Your task to perform on an android device: Add "logitech g pro" to the cart on amazon Image 0: 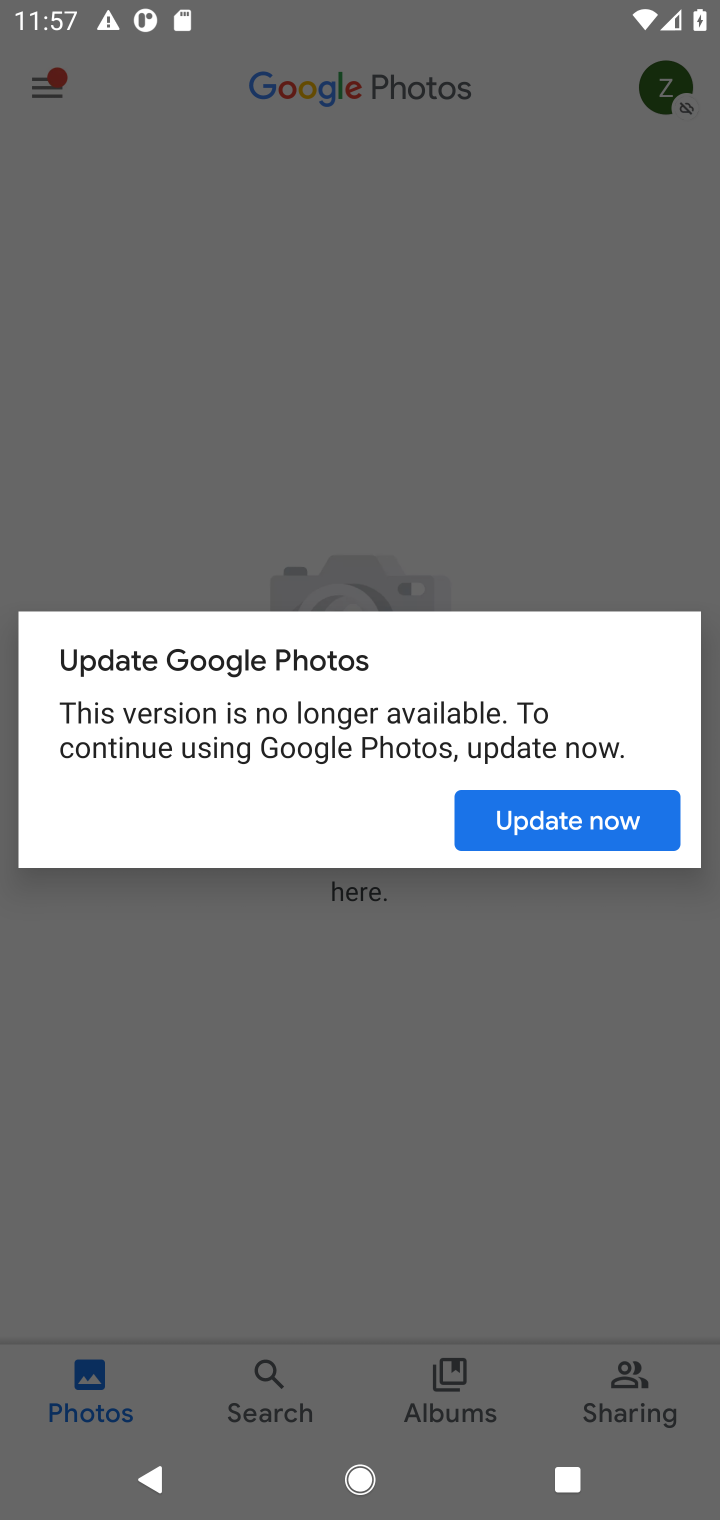
Step 0: press home button
Your task to perform on an android device: Add "logitech g pro" to the cart on amazon Image 1: 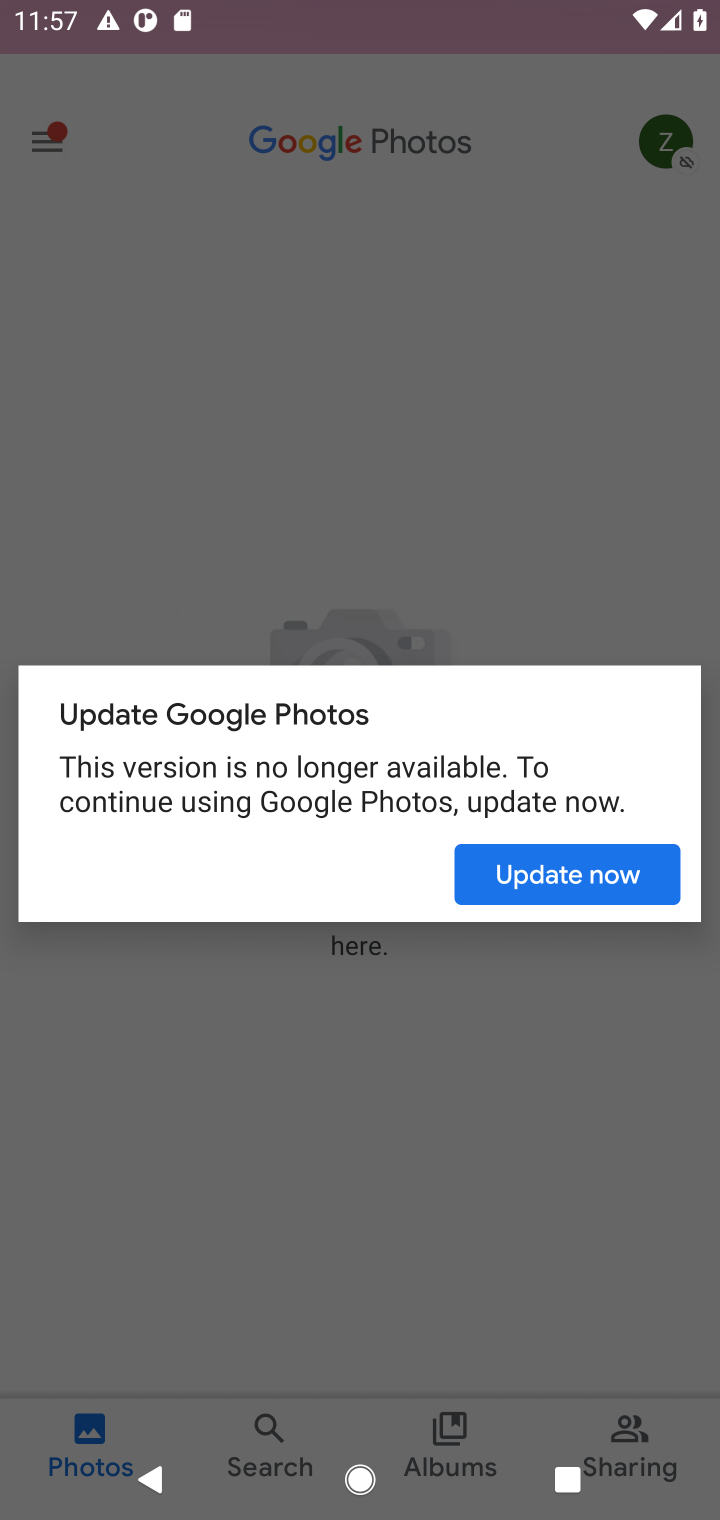
Step 1: press home button
Your task to perform on an android device: Add "logitech g pro" to the cart on amazon Image 2: 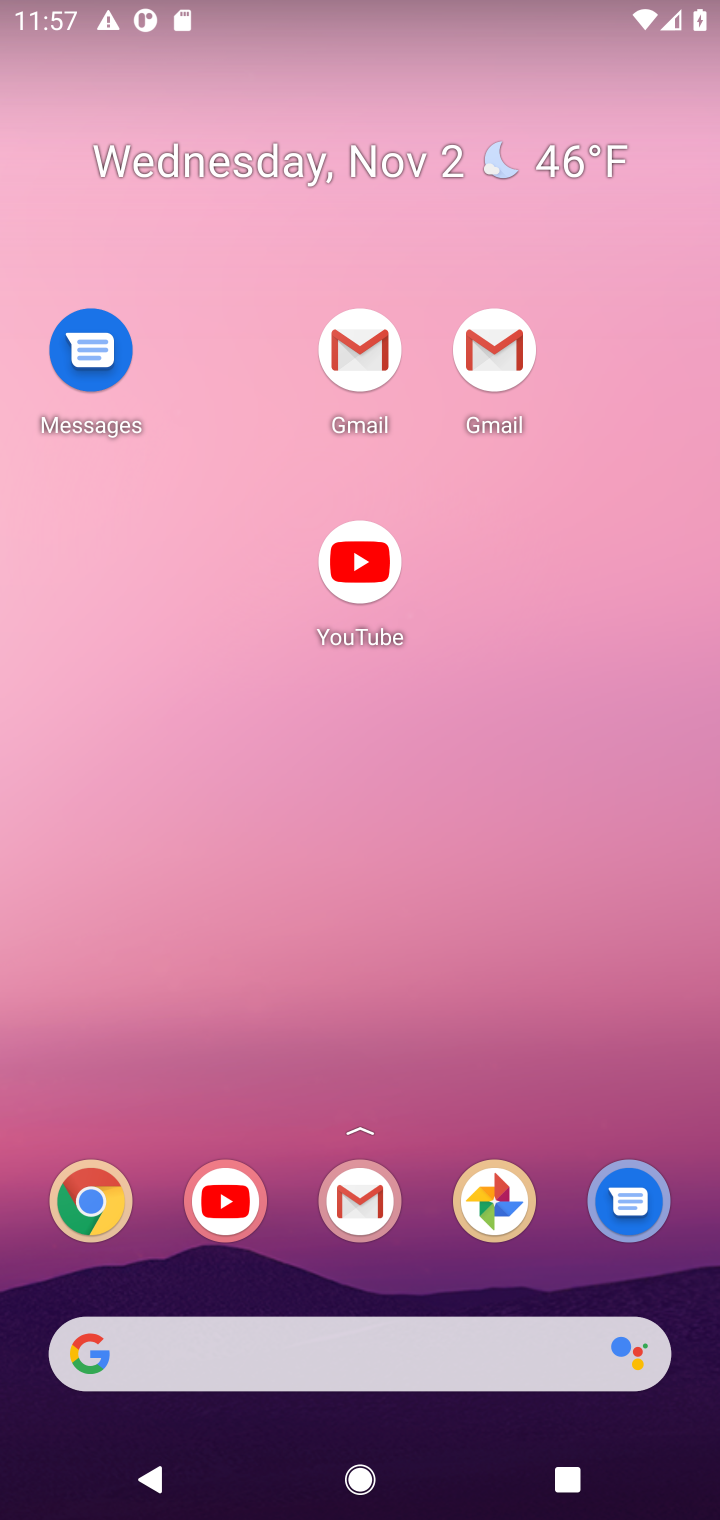
Step 2: drag from (410, 1209) to (342, 378)
Your task to perform on an android device: Add "logitech g pro" to the cart on amazon Image 3: 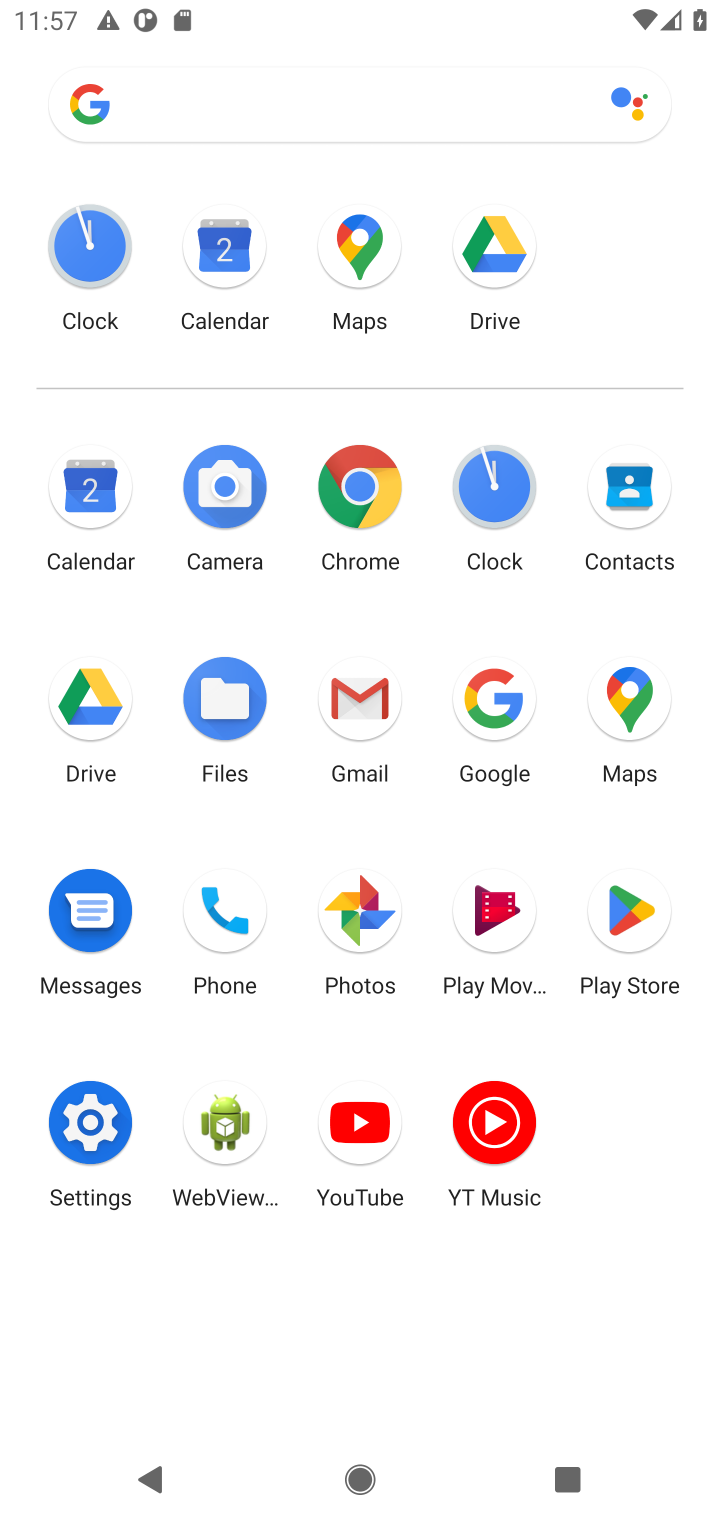
Step 3: click (350, 485)
Your task to perform on an android device: Add "logitech g pro" to the cart on amazon Image 4: 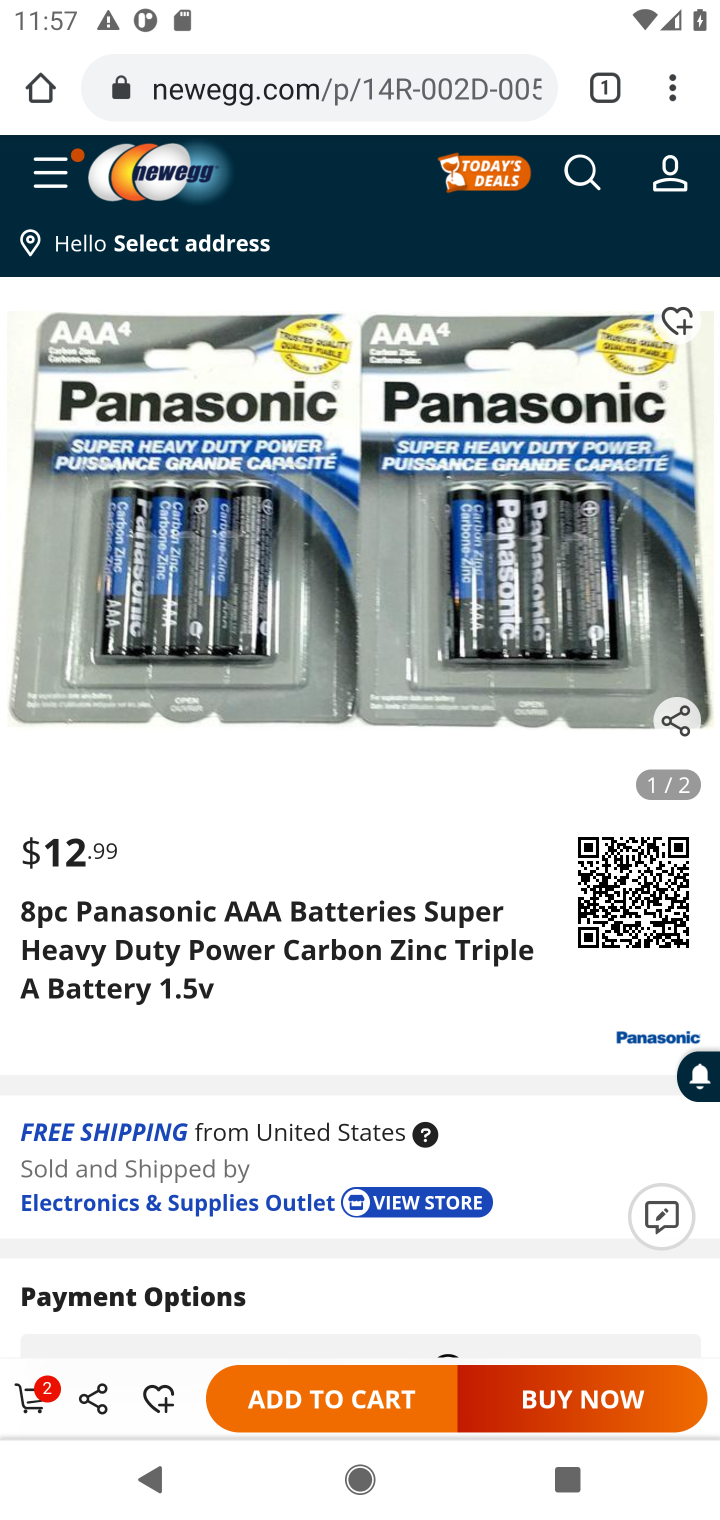
Step 4: click (338, 86)
Your task to perform on an android device: Add "logitech g pro" to the cart on amazon Image 5: 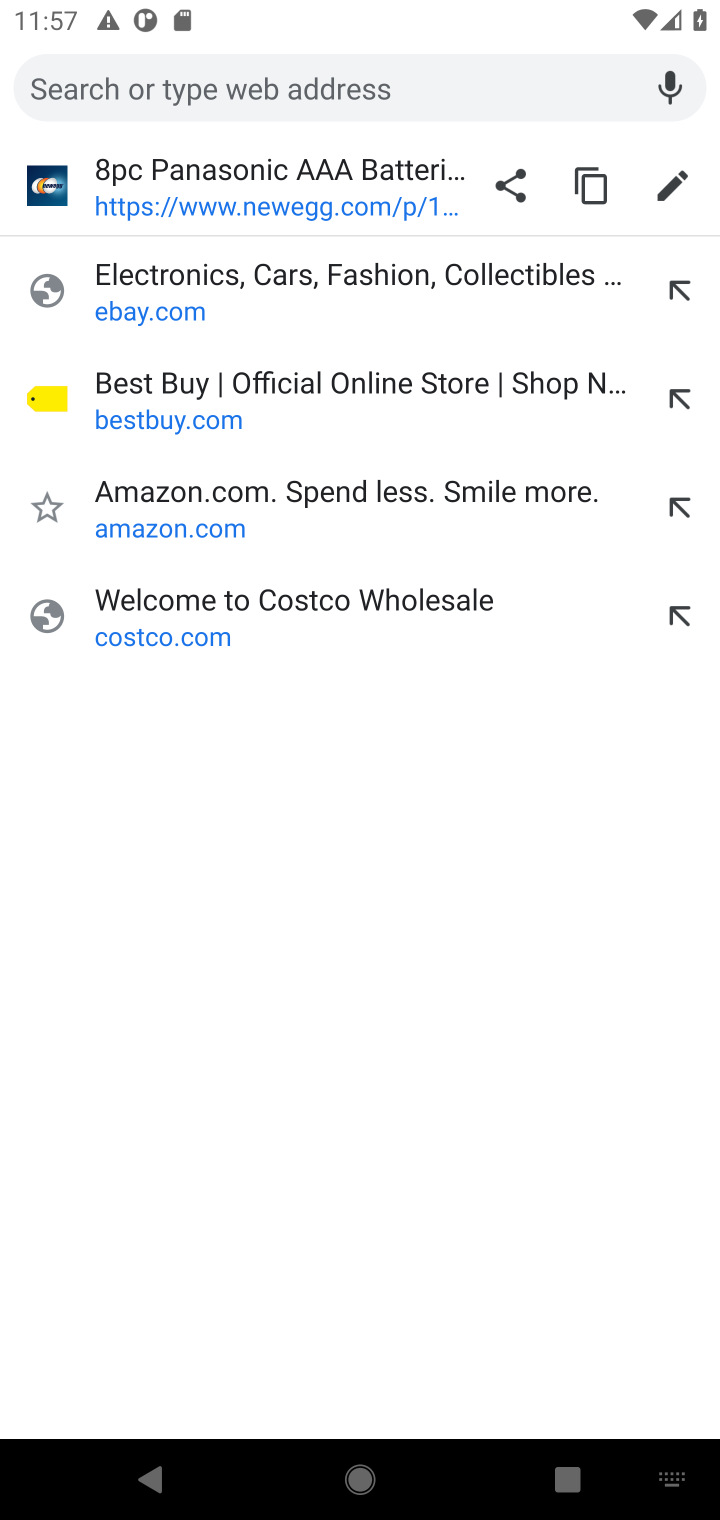
Step 5: type "amazon.com"
Your task to perform on an android device: Add "logitech g pro" to the cart on amazon Image 6: 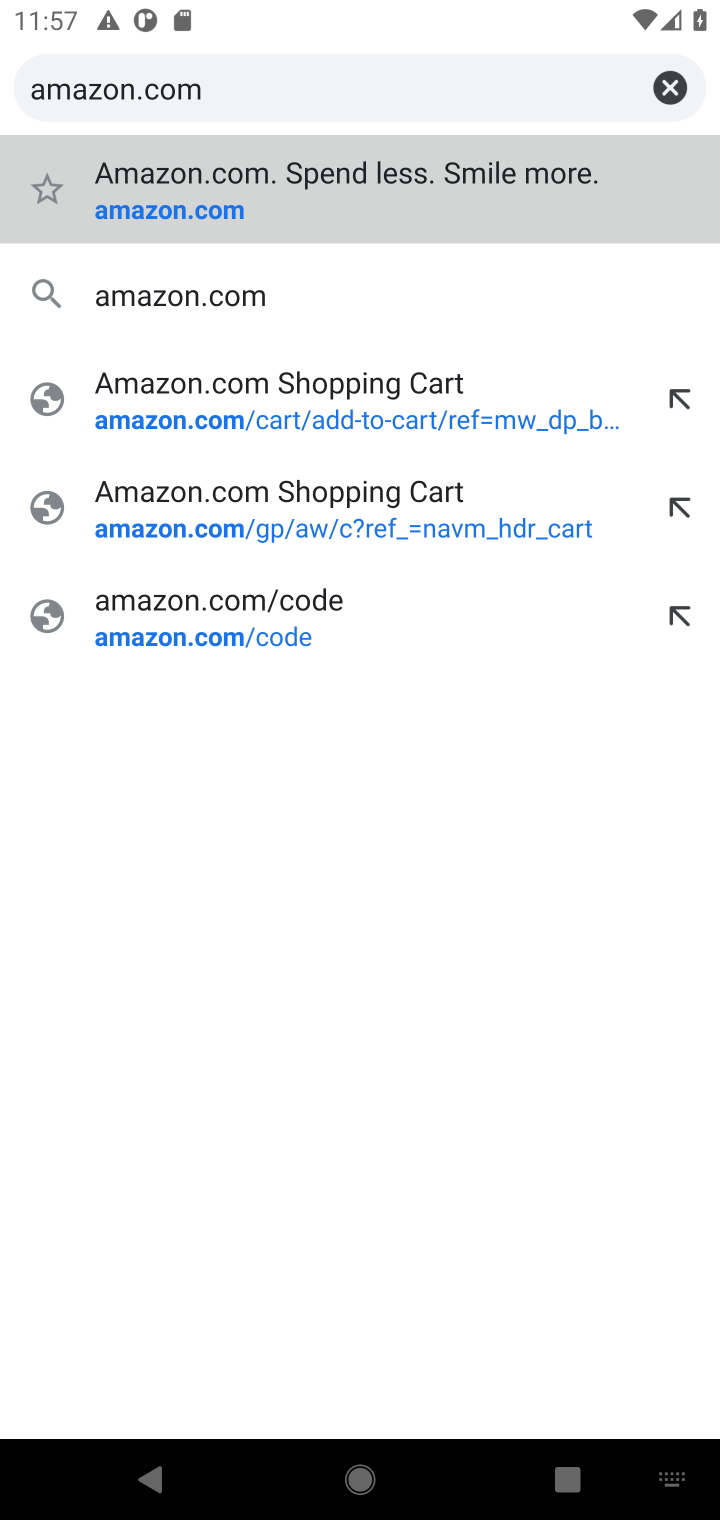
Step 6: press enter
Your task to perform on an android device: Add "logitech g pro" to the cart on amazon Image 7: 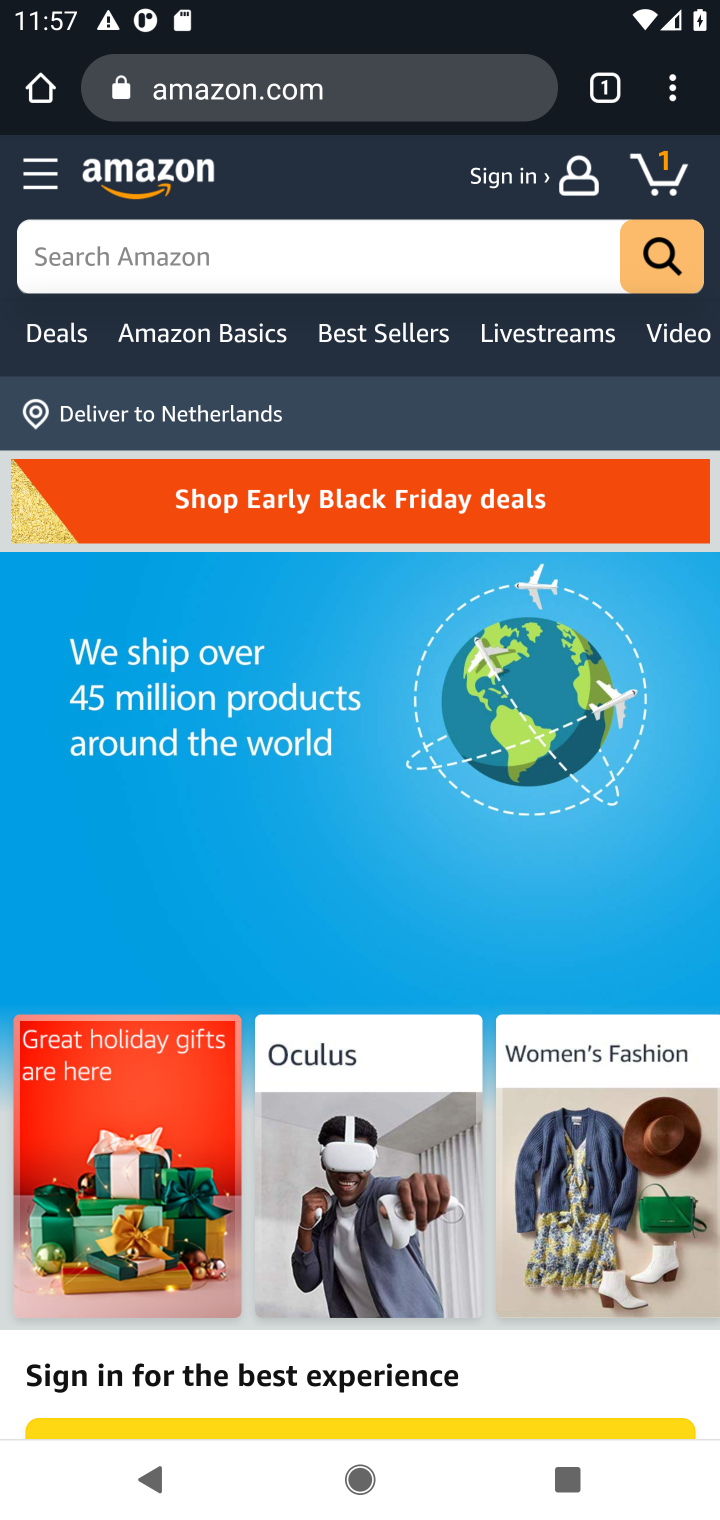
Step 7: click (212, 260)
Your task to perform on an android device: Add "logitech g pro" to the cart on amazon Image 8: 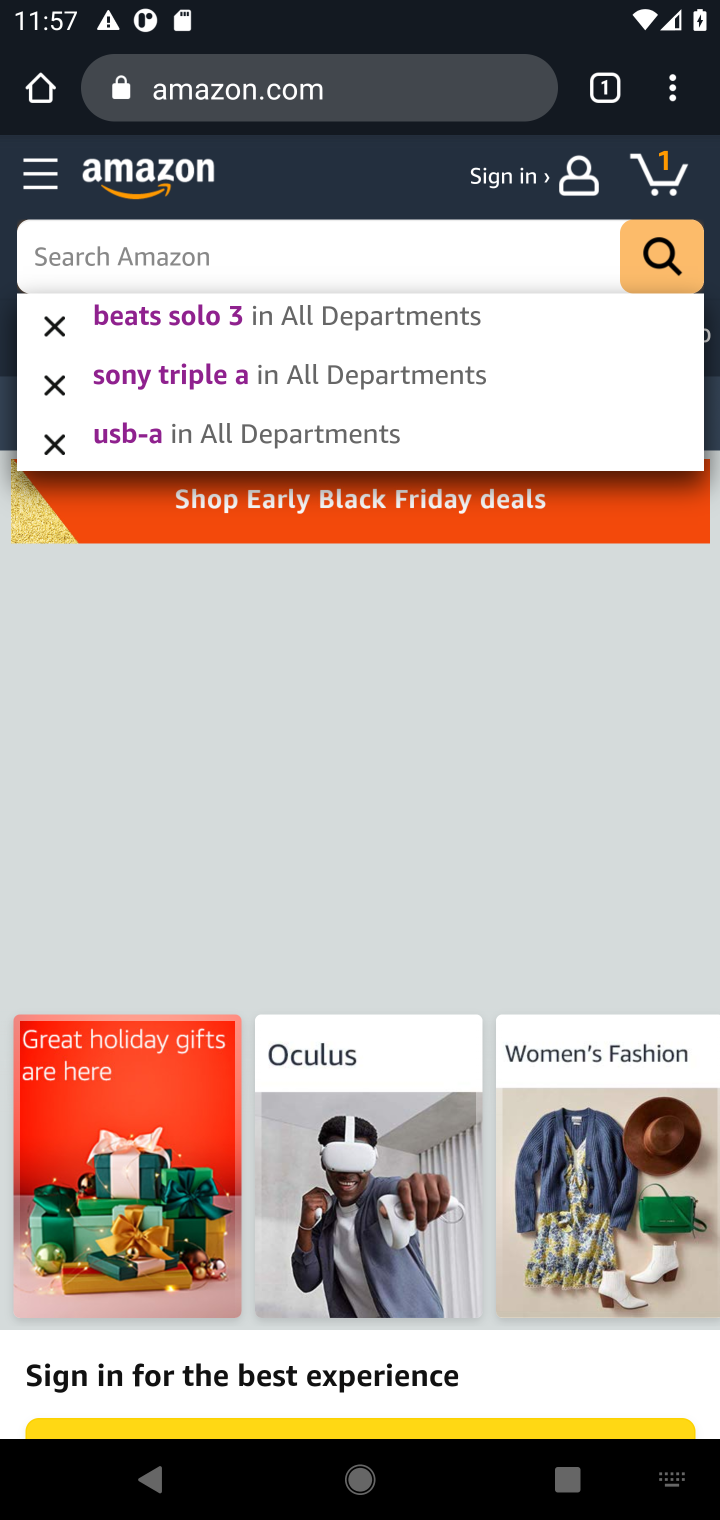
Step 8: type "logitech g pro"
Your task to perform on an android device: Add "logitech g pro" to the cart on amazon Image 9: 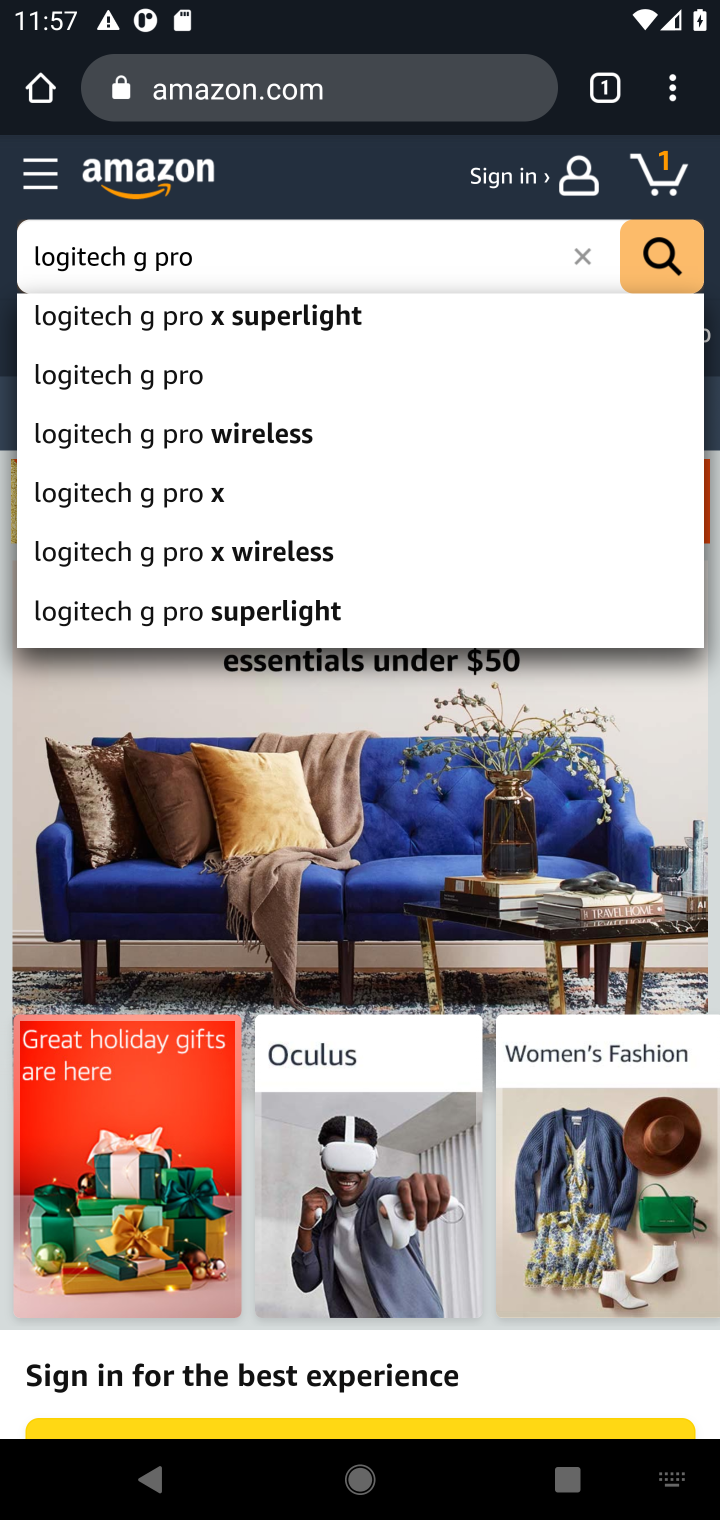
Step 9: press enter
Your task to perform on an android device: Add "logitech g pro" to the cart on amazon Image 10: 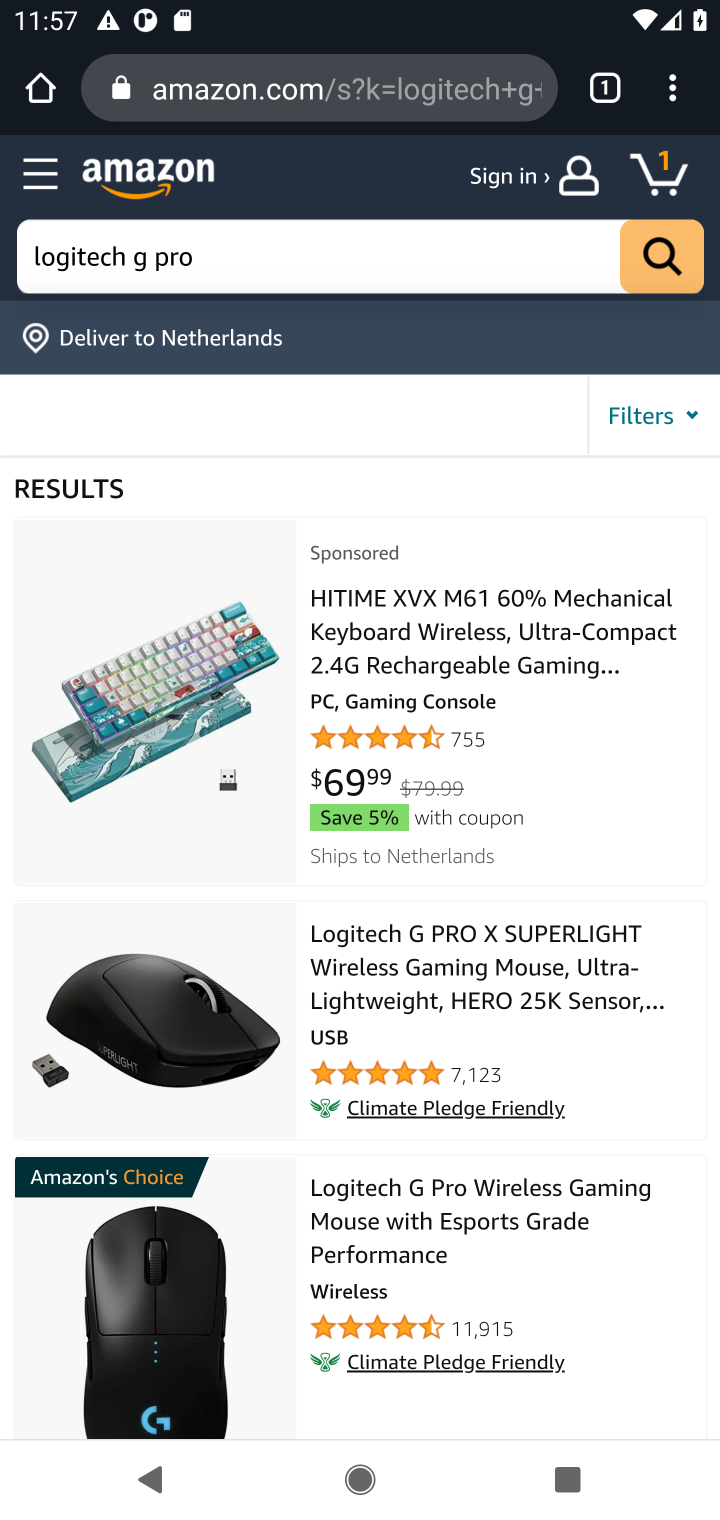
Step 10: click (336, 968)
Your task to perform on an android device: Add "logitech g pro" to the cart on amazon Image 11: 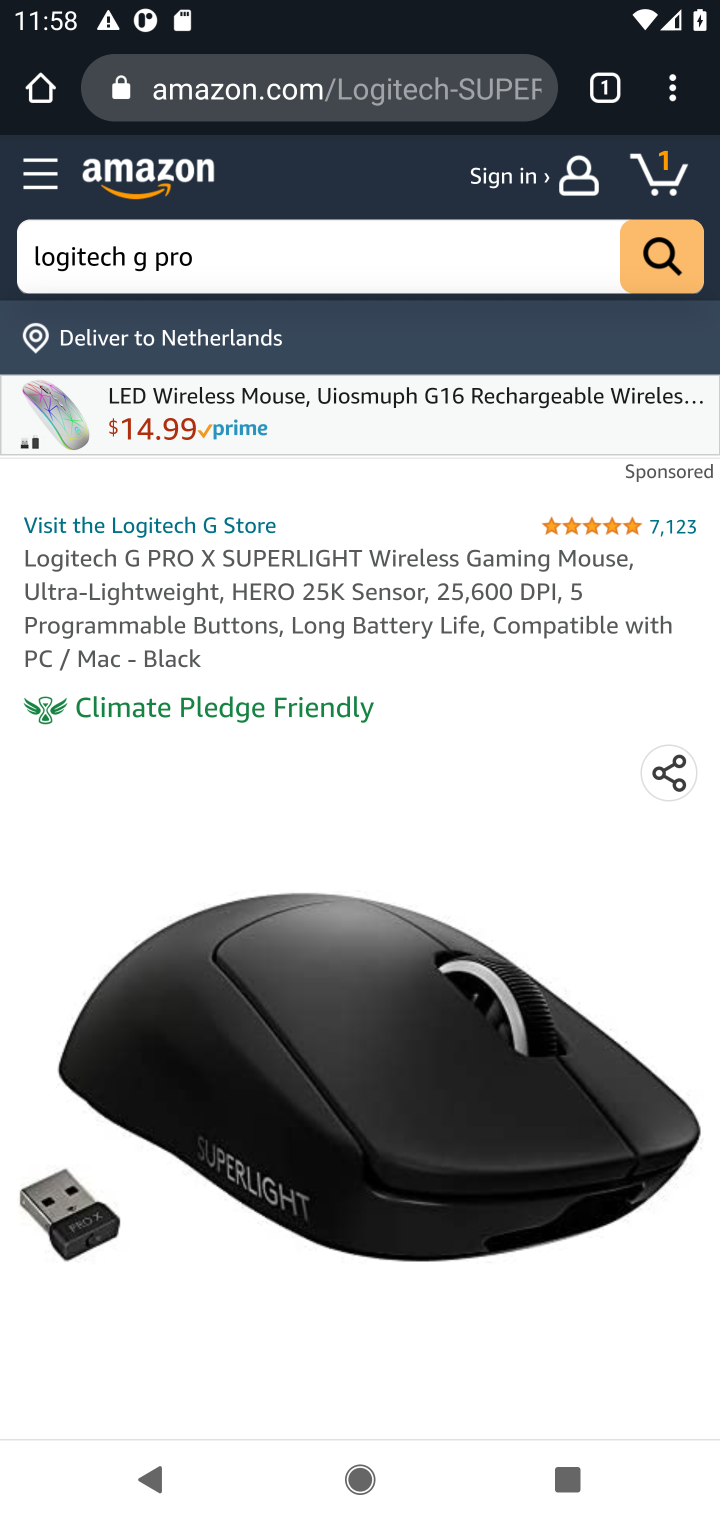
Step 11: drag from (443, 1308) to (490, 284)
Your task to perform on an android device: Add "logitech g pro" to the cart on amazon Image 12: 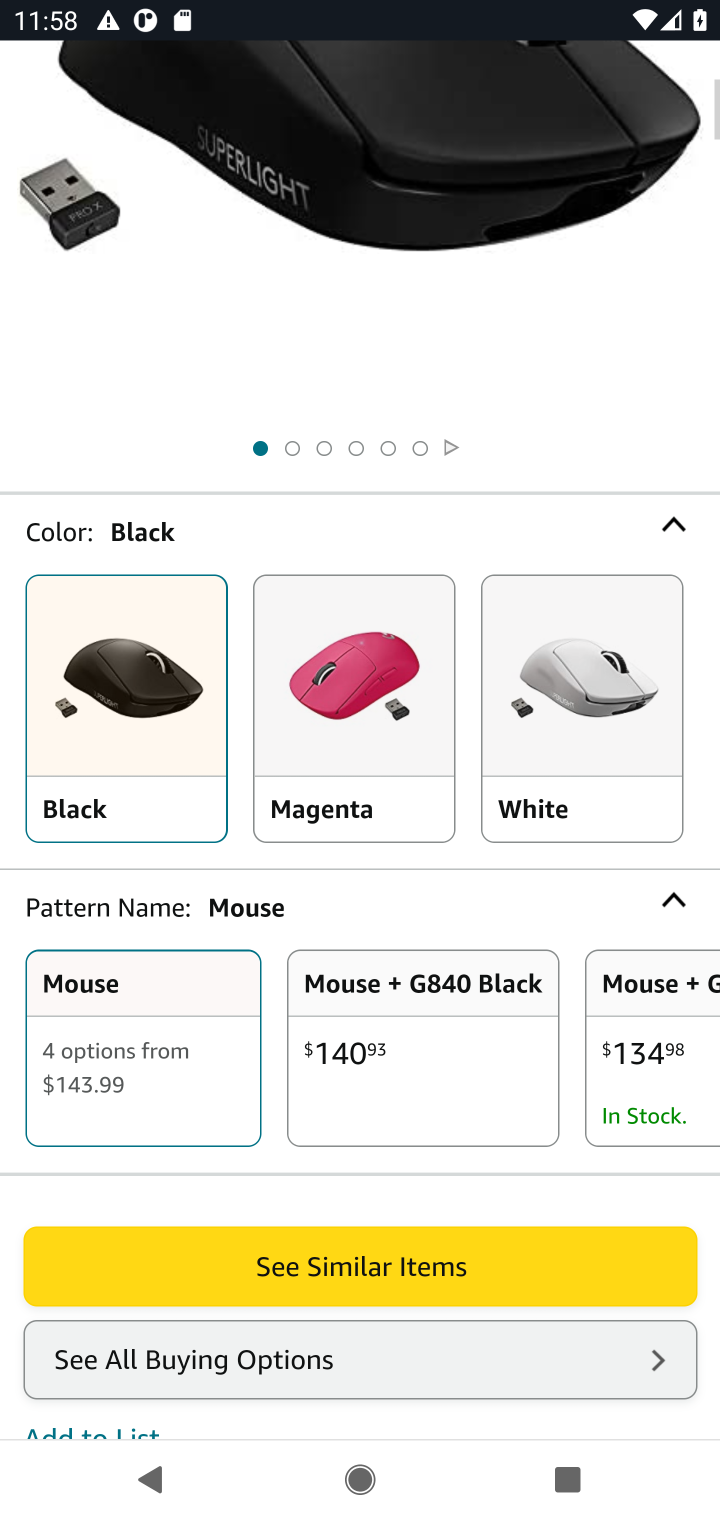
Step 12: drag from (399, 1109) to (482, 520)
Your task to perform on an android device: Add "logitech g pro" to the cart on amazon Image 13: 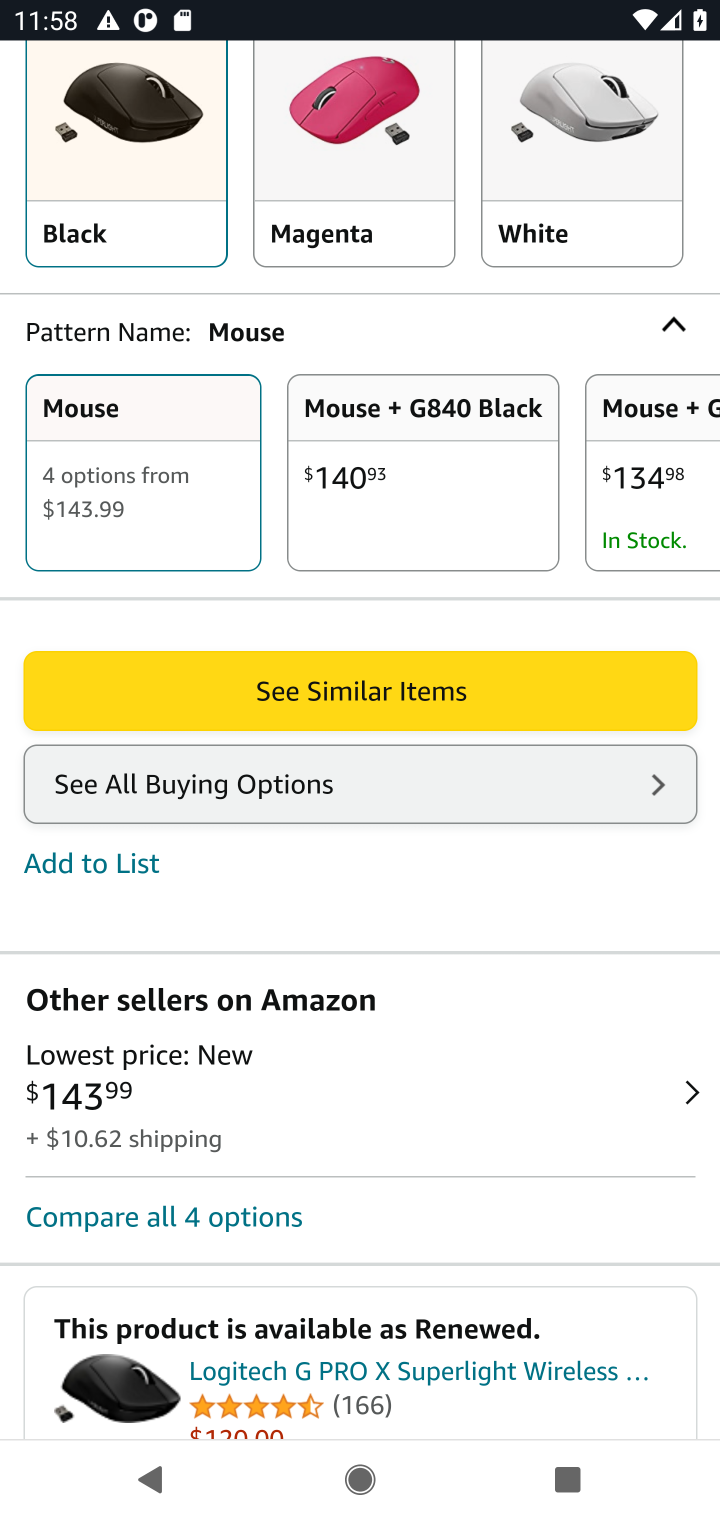
Step 13: drag from (471, 1122) to (438, 347)
Your task to perform on an android device: Add "logitech g pro" to the cart on amazon Image 14: 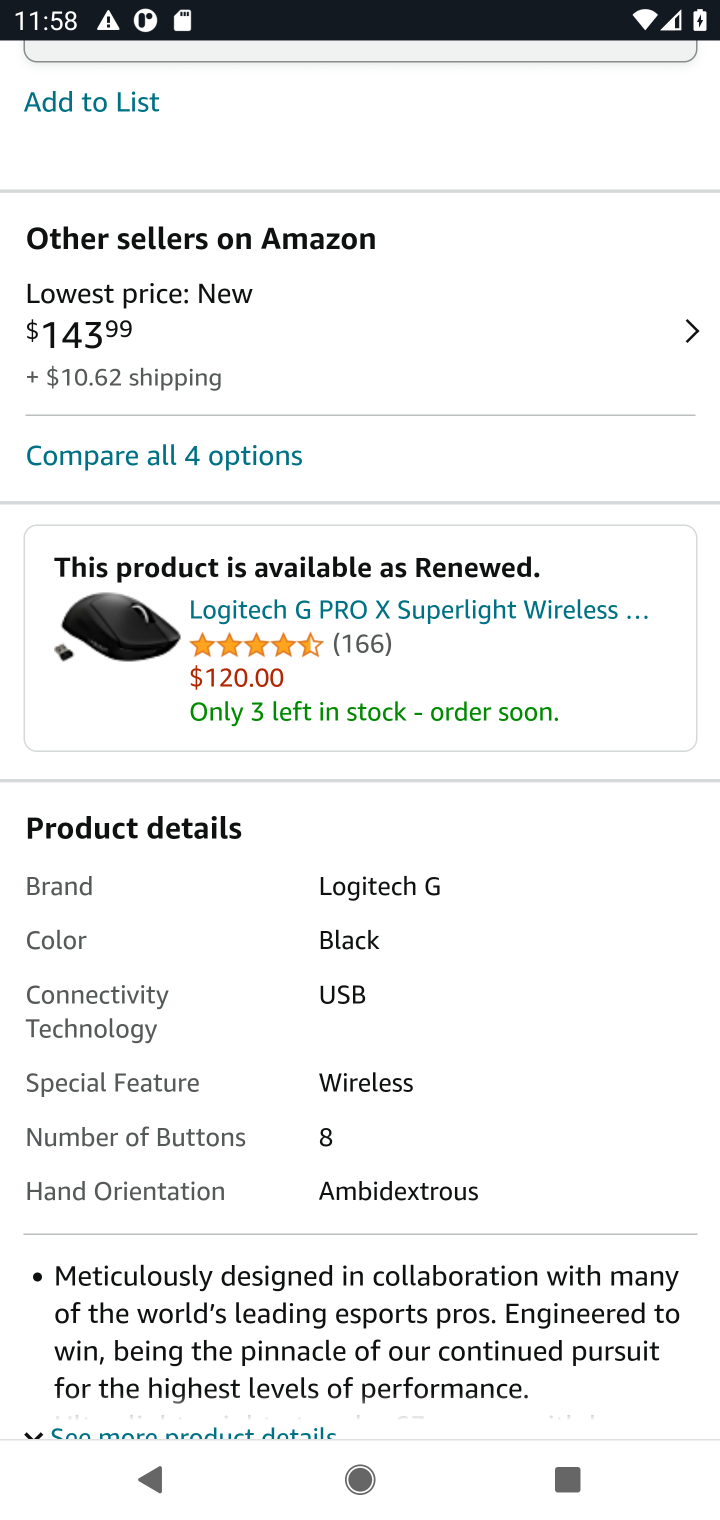
Step 14: drag from (317, 1144) to (385, 1503)
Your task to perform on an android device: Add "logitech g pro" to the cart on amazon Image 15: 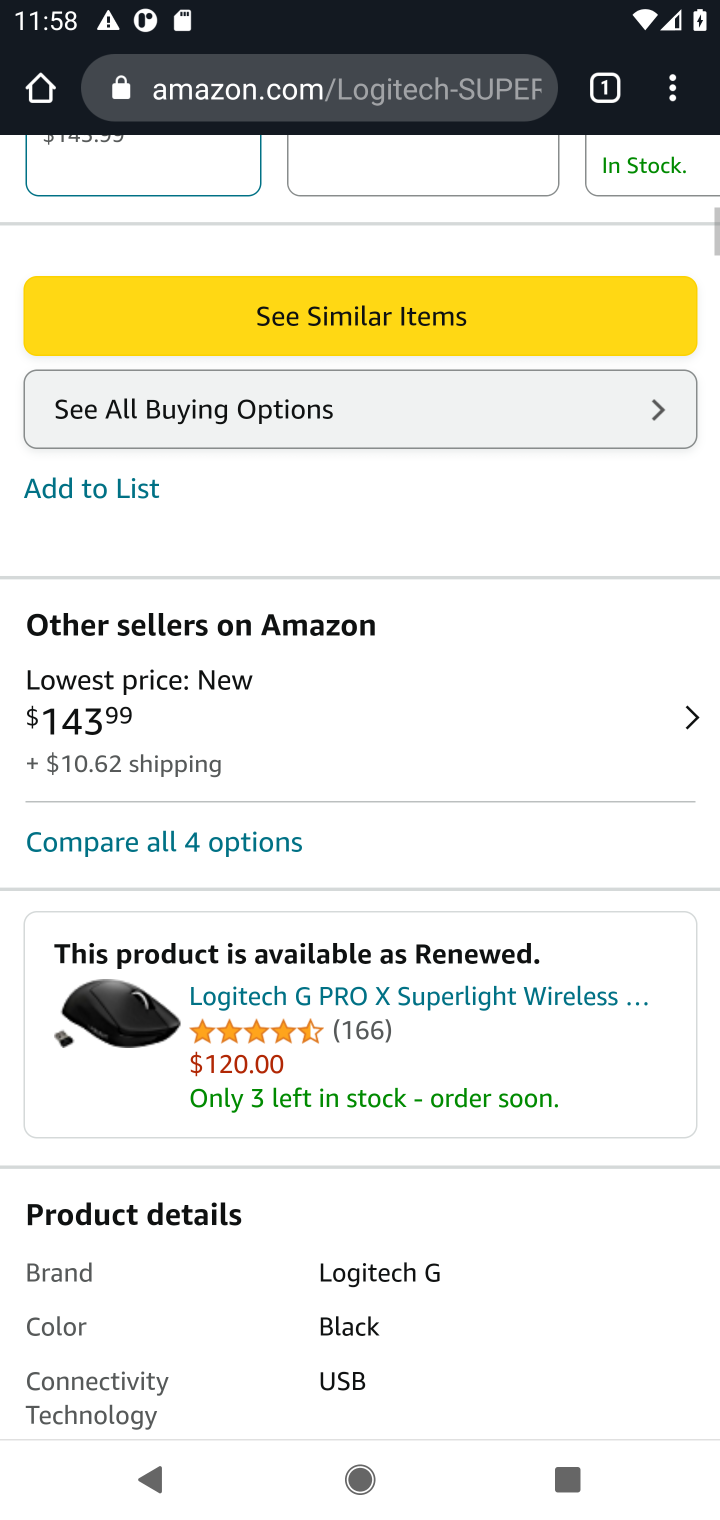
Step 15: drag from (365, 606) to (431, 1286)
Your task to perform on an android device: Add "logitech g pro" to the cart on amazon Image 16: 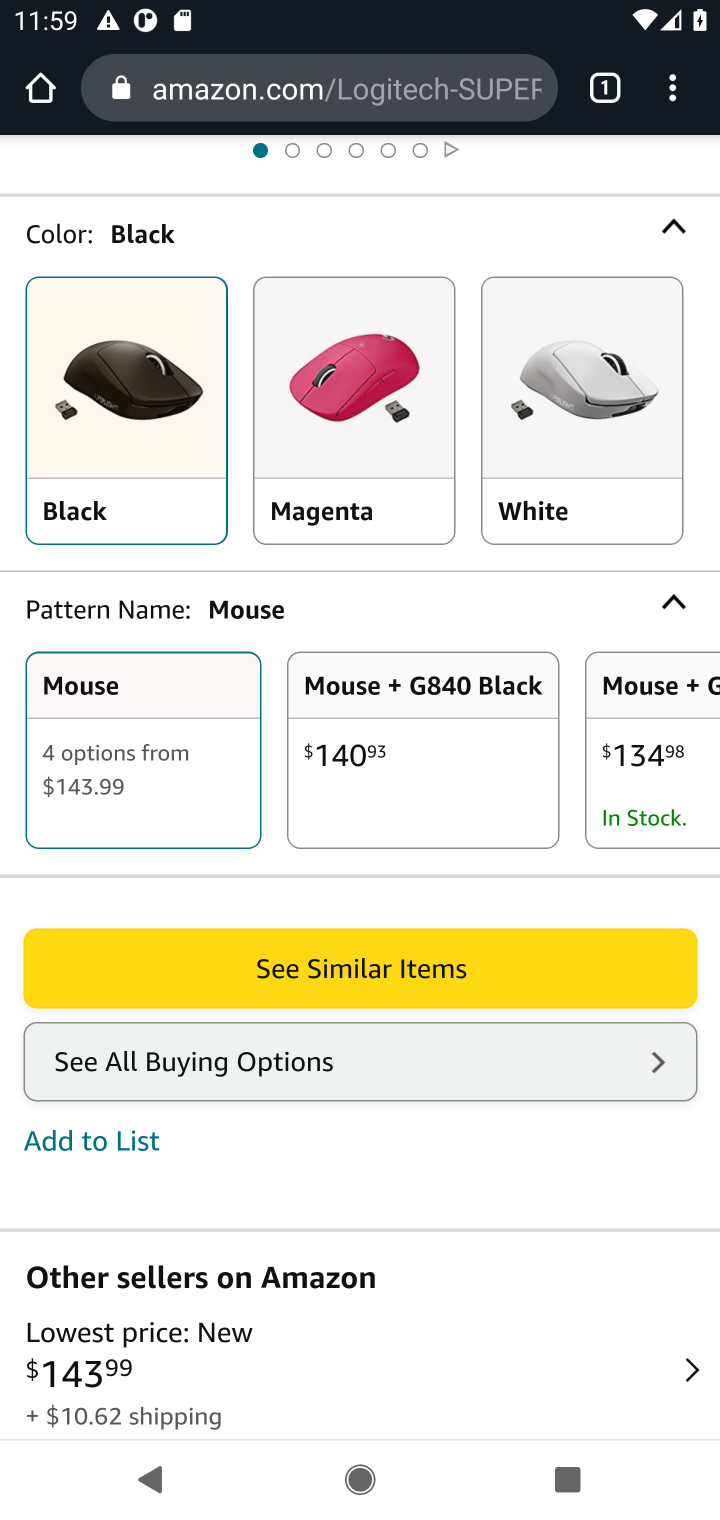
Step 16: drag from (483, 529) to (405, 470)
Your task to perform on an android device: Add "logitech g pro" to the cart on amazon Image 17: 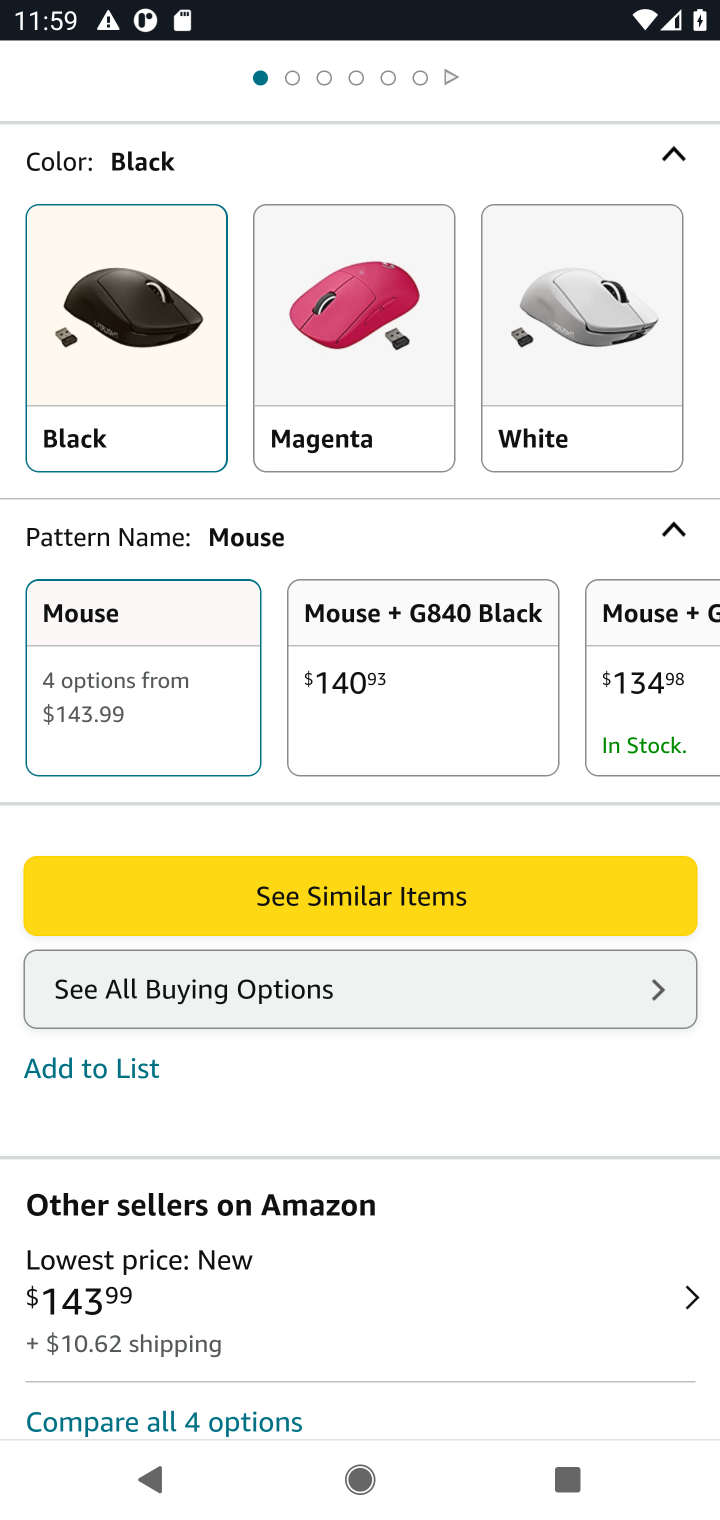
Step 17: click (636, 998)
Your task to perform on an android device: Add "logitech g pro" to the cart on amazon Image 18: 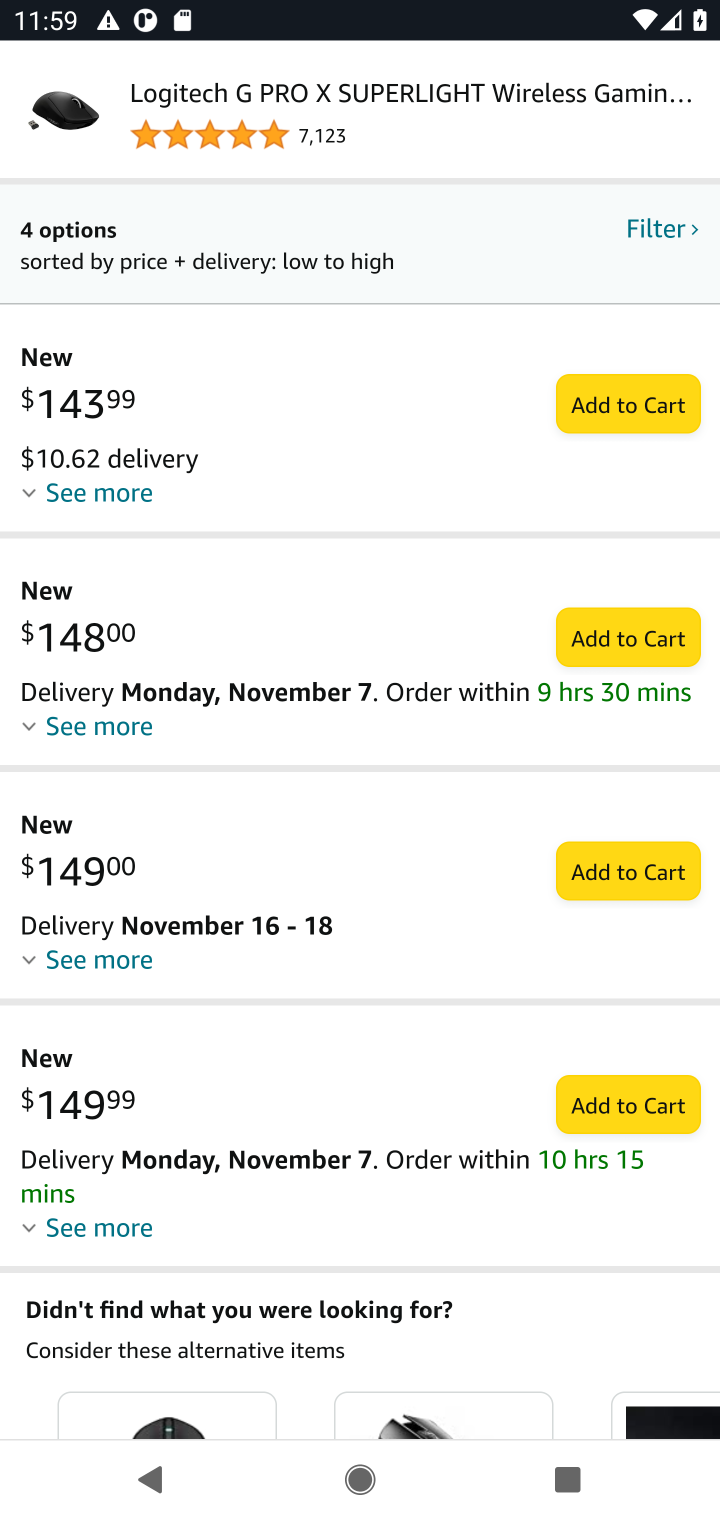
Step 18: click (603, 395)
Your task to perform on an android device: Add "logitech g pro" to the cart on amazon Image 19: 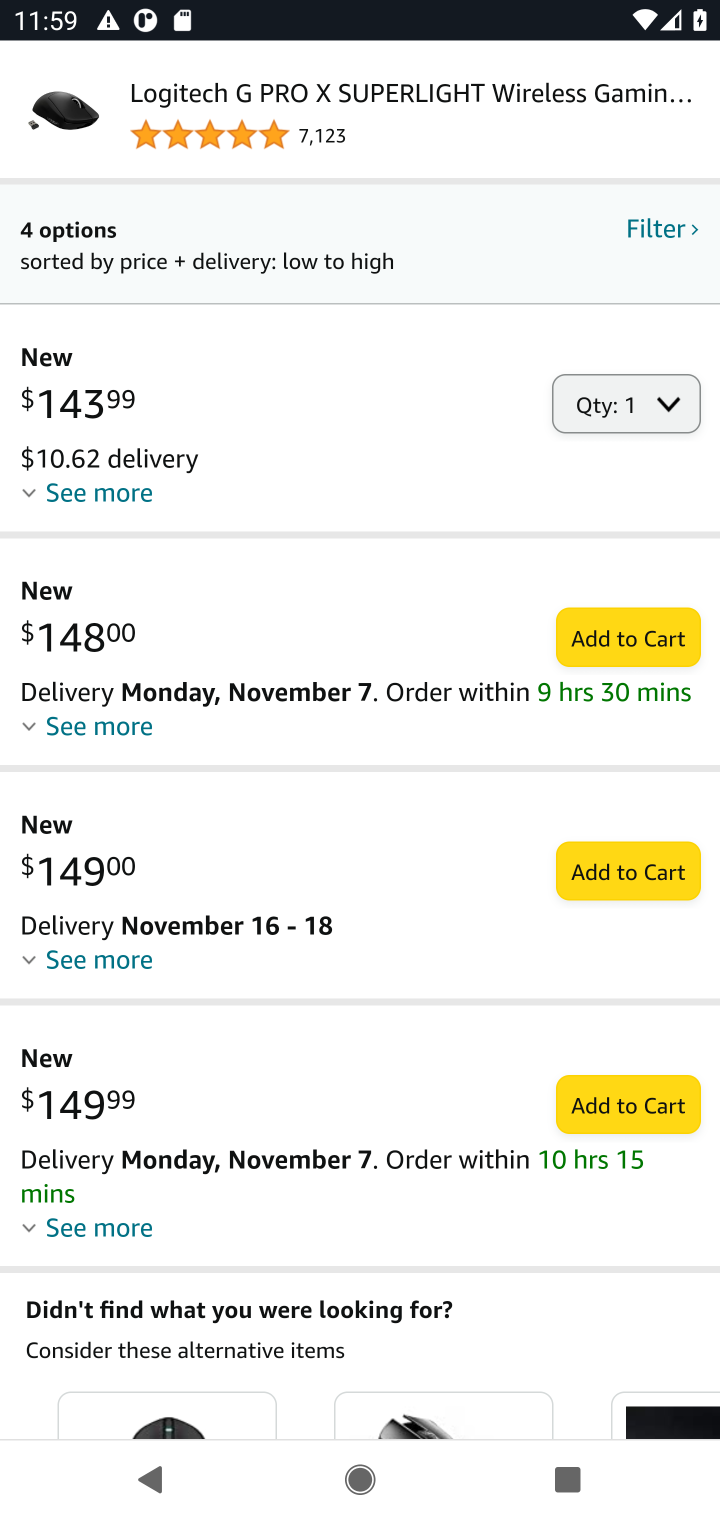
Step 19: task complete